Your task to perform on an android device: Go to settings Image 0: 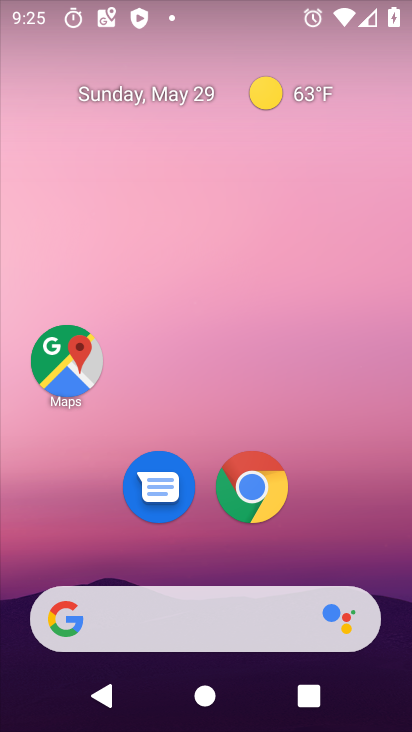
Step 0: drag from (234, 602) to (229, 135)
Your task to perform on an android device: Go to settings Image 1: 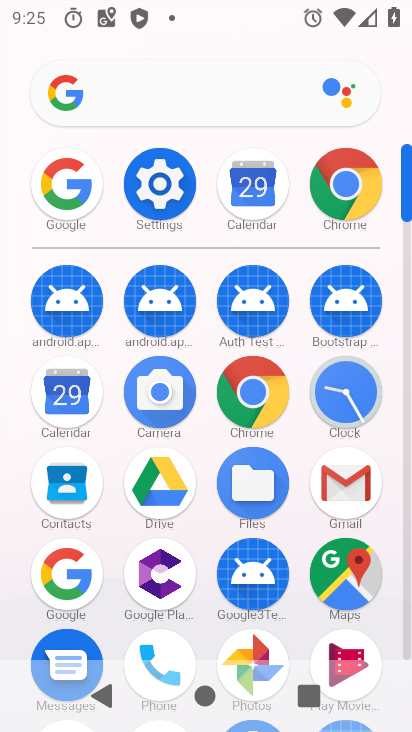
Step 1: click (153, 213)
Your task to perform on an android device: Go to settings Image 2: 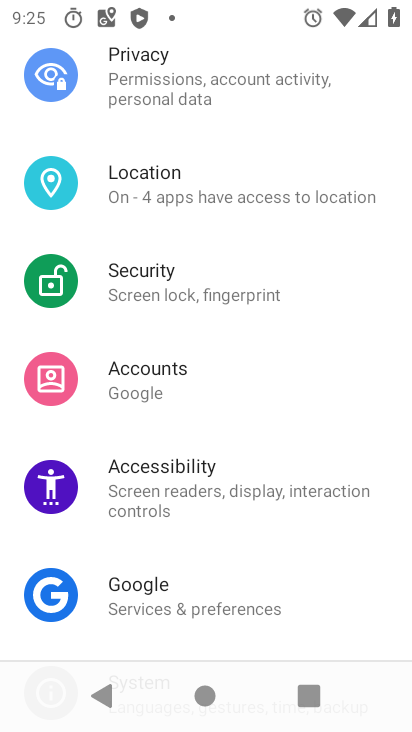
Step 2: task complete